Your task to perform on an android device: install app "TextNow: Call + Text Unlimited" Image 0: 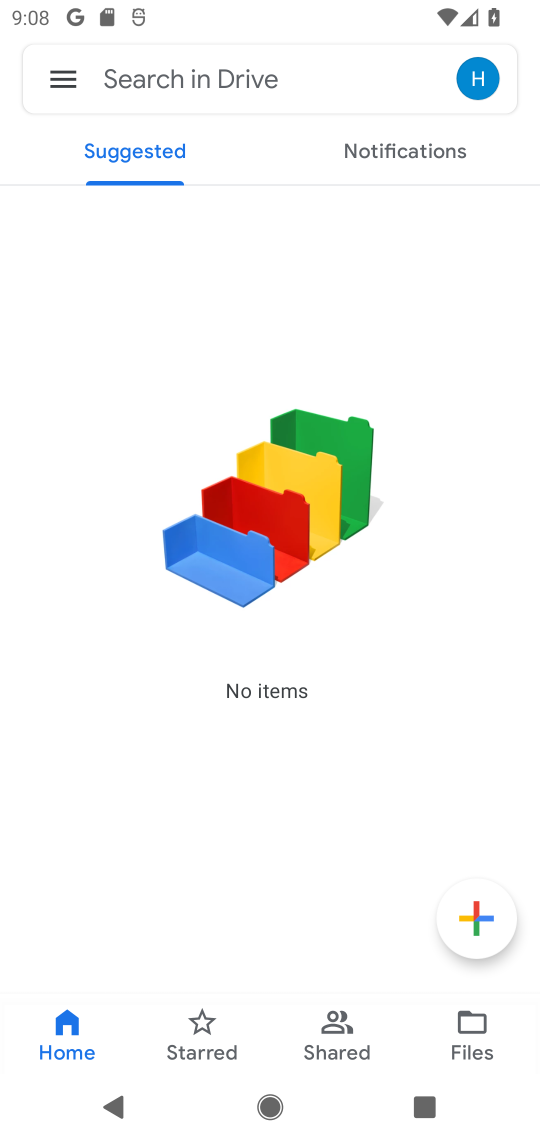
Step 0: press home button
Your task to perform on an android device: install app "TextNow: Call + Text Unlimited" Image 1: 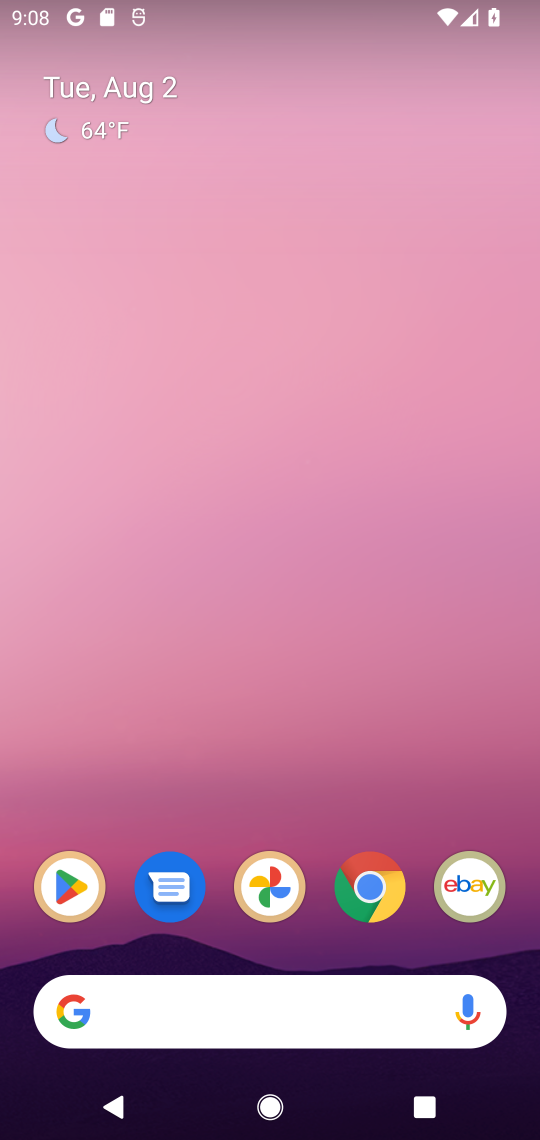
Step 1: click (66, 913)
Your task to perform on an android device: install app "TextNow: Call + Text Unlimited" Image 2: 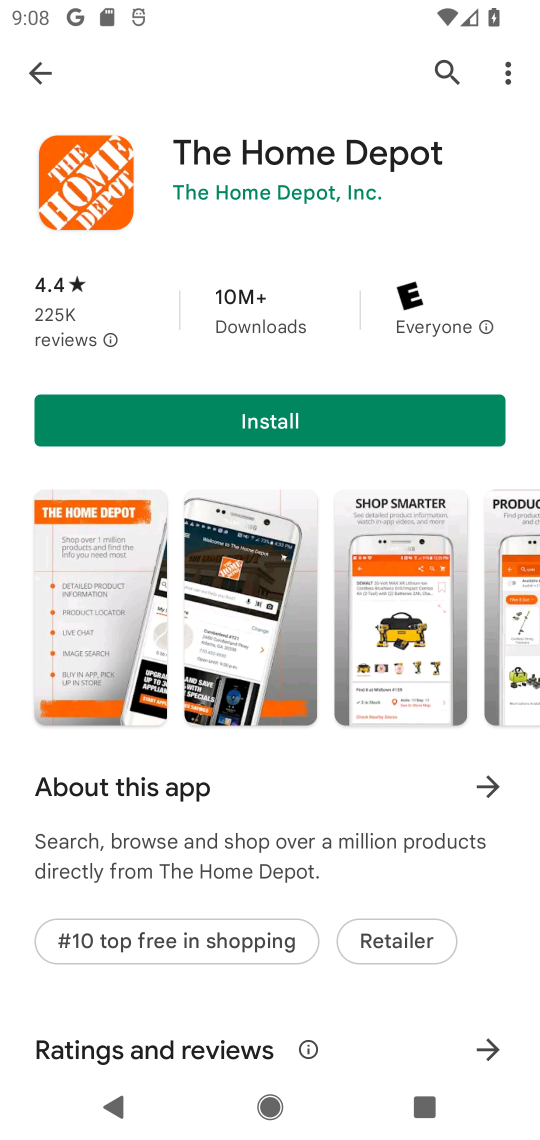
Step 2: click (430, 88)
Your task to perform on an android device: install app "TextNow: Call + Text Unlimited" Image 3: 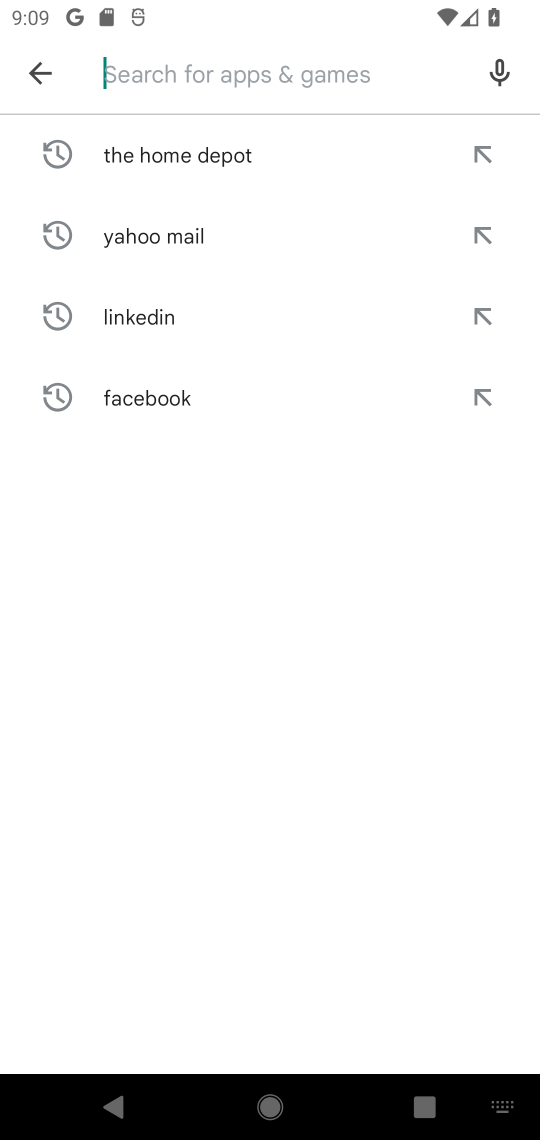
Step 3: type "textnow: call + text unlmited"
Your task to perform on an android device: install app "TextNow: Call + Text Unlimited" Image 4: 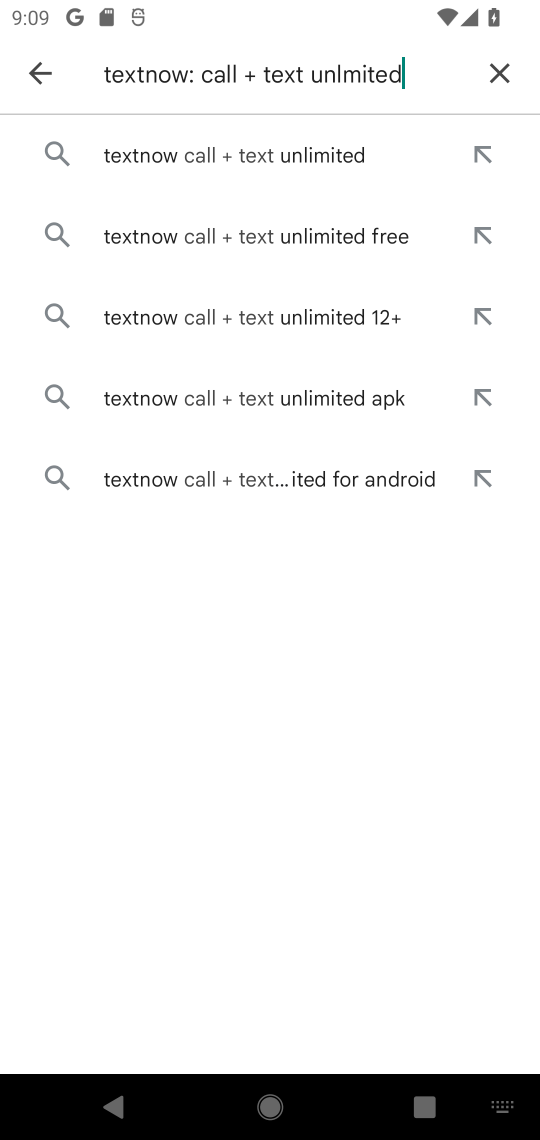
Step 4: click (327, 153)
Your task to perform on an android device: install app "TextNow: Call + Text Unlimited" Image 5: 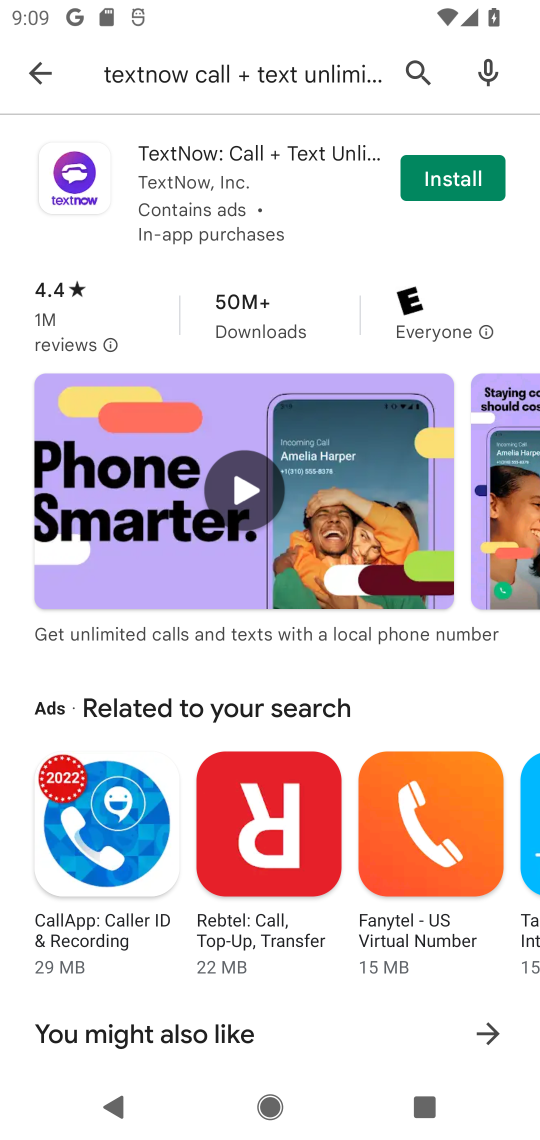
Step 5: click (300, 157)
Your task to perform on an android device: install app "TextNow: Call + Text Unlimited" Image 6: 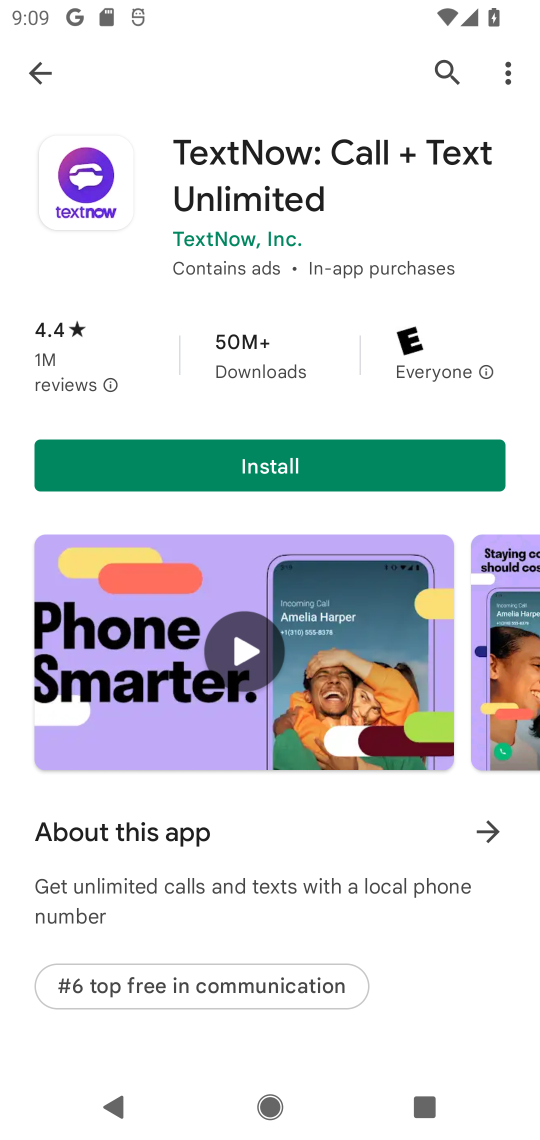
Step 6: click (203, 473)
Your task to perform on an android device: install app "TextNow: Call + Text Unlimited" Image 7: 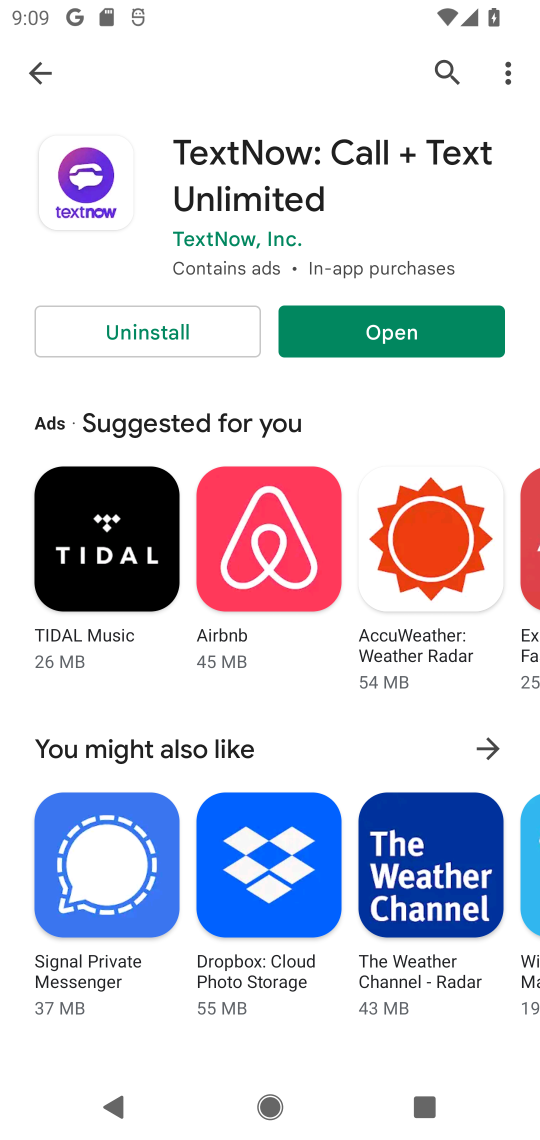
Step 7: task complete